Your task to perform on an android device: toggle translation in the chrome app Image 0: 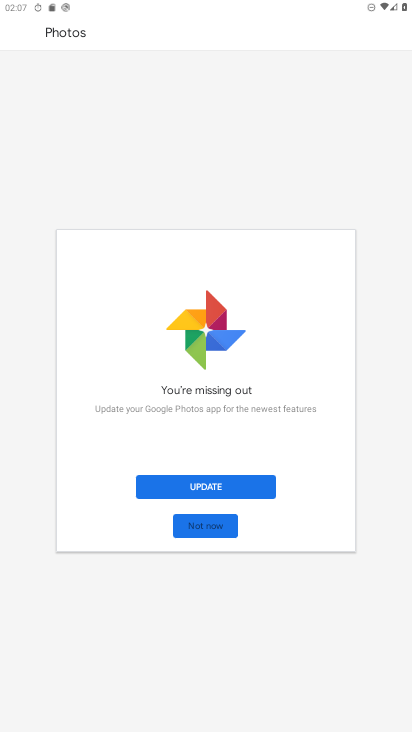
Step 0: press home button
Your task to perform on an android device: toggle translation in the chrome app Image 1: 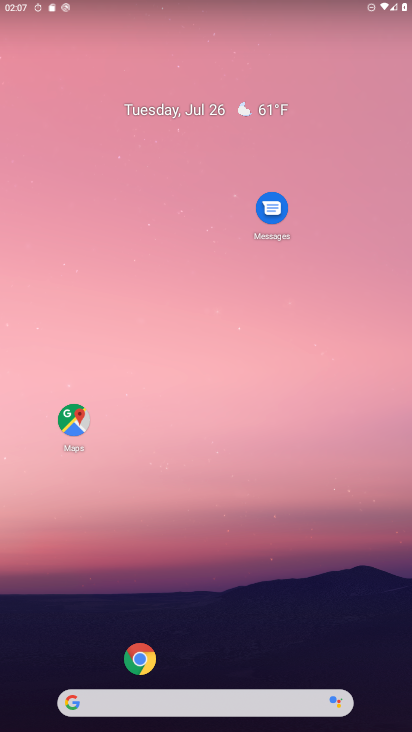
Step 1: click (133, 657)
Your task to perform on an android device: toggle translation in the chrome app Image 2: 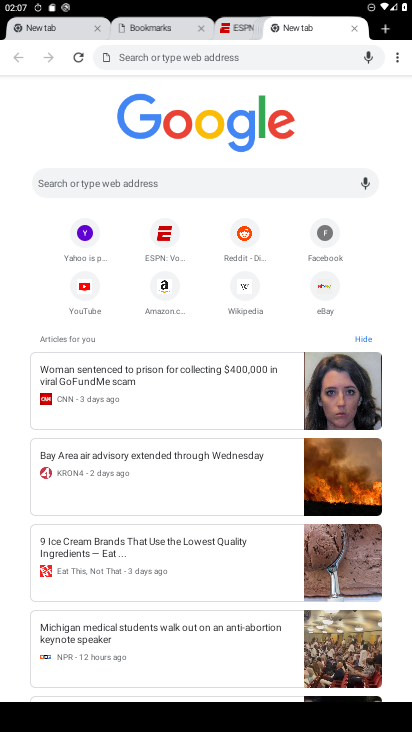
Step 2: click (395, 56)
Your task to perform on an android device: toggle translation in the chrome app Image 3: 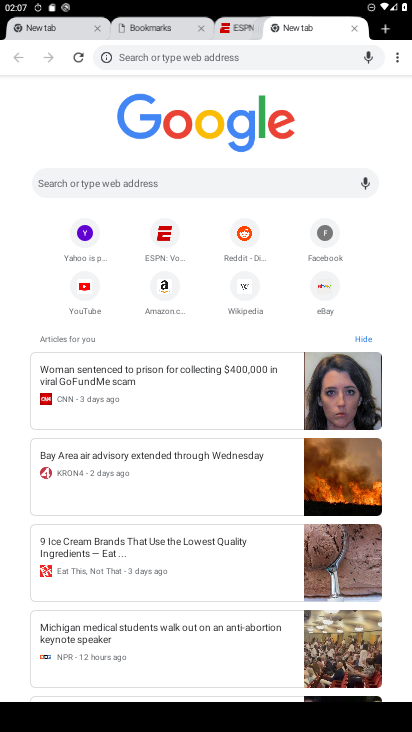
Step 3: click (387, 62)
Your task to perform on an android device: toggle translation in the chrome app Image 4: 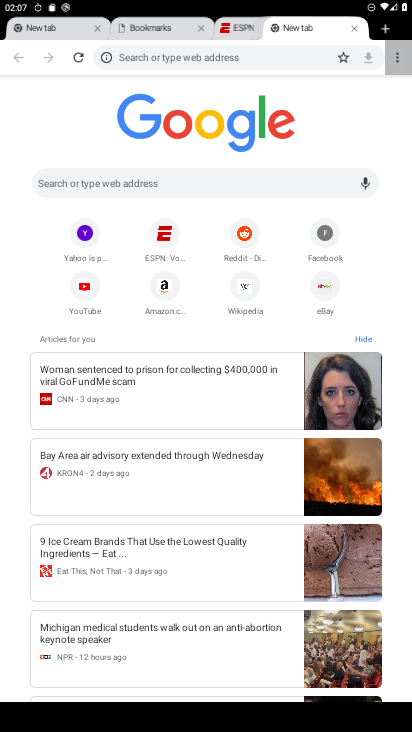
Step 4: click (388, 61)
Your task to perform on an android device: toggle translation in the chrome app Image 5: 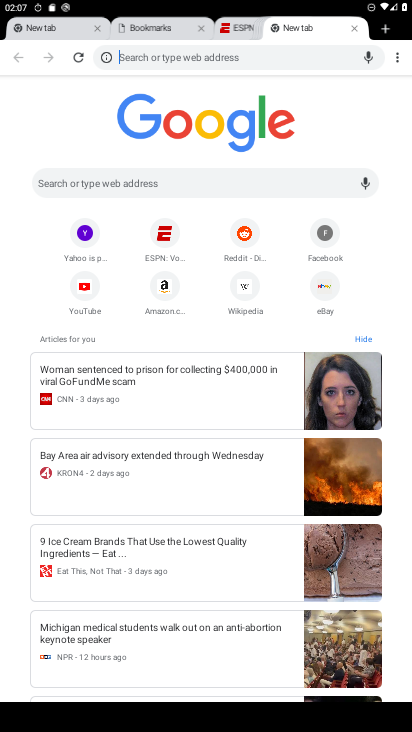
Step 5: task complete